Your task to perform on an android device: Open Google Image 0: 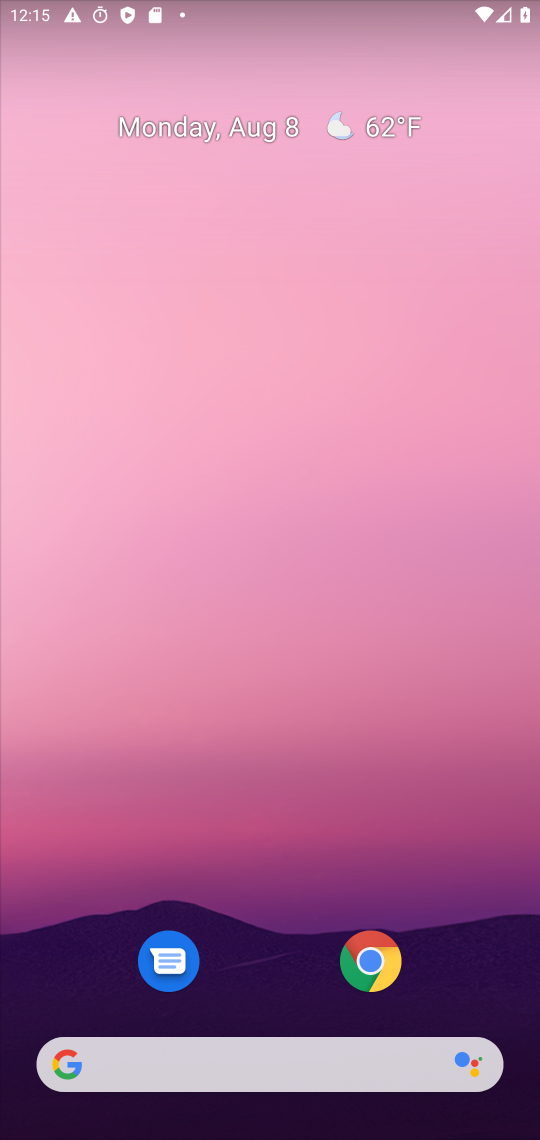
Step 0: drag from (372, 1058) to (220, 373)
Your task to perform on an android device: Open Google Image 1: 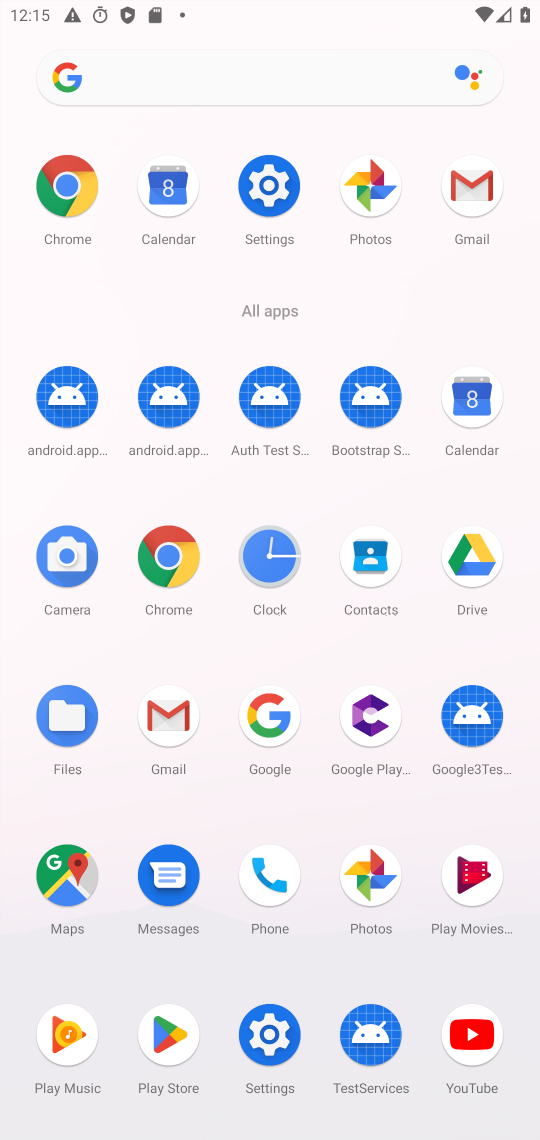
Step 1: click (177, 568)
Your task to perform on an android device: Open Google Image 2: 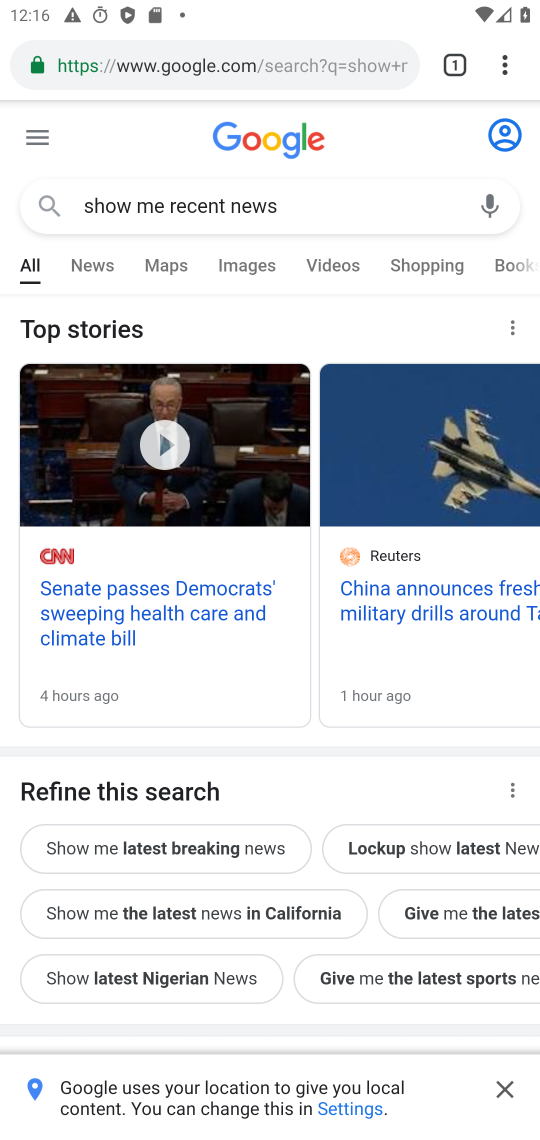
Step 2: task complete